Your task to perform on an android device: Go to eBay Image 0: 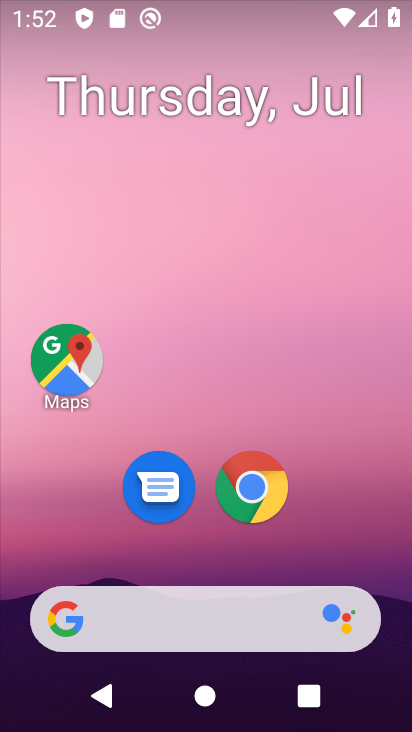
Step 0: drag from (359, 522) to (373, 203)
Your task to perform on an android device: Go to eBay Image 1: 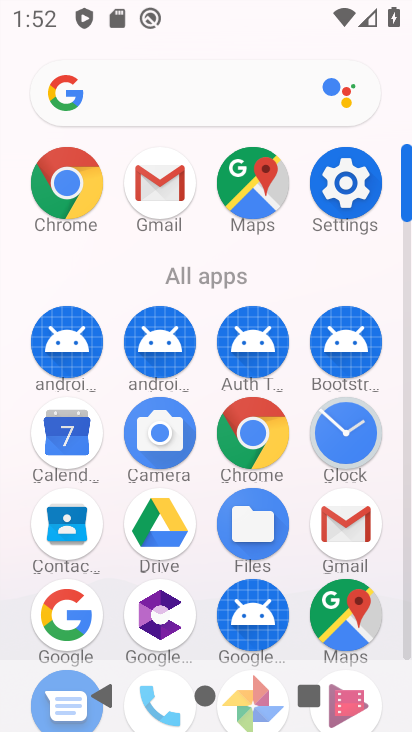
Step 1: click (268, 450)
Your task to perform on an android device: Go to eBay Image 2: 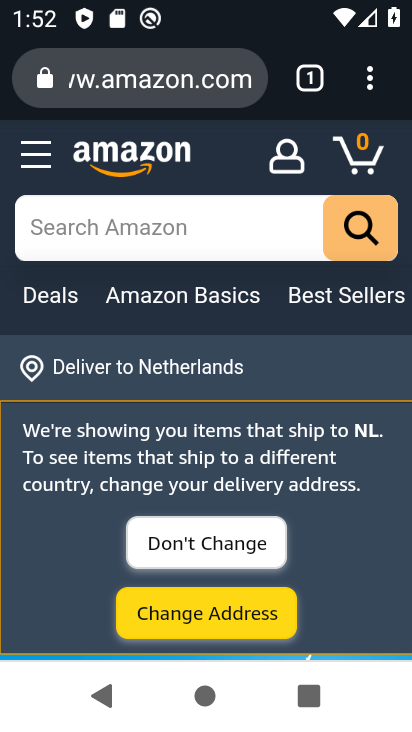
Step 2: click (213, 82)
Your task to perform on an android device: Go to eBay Image 3: 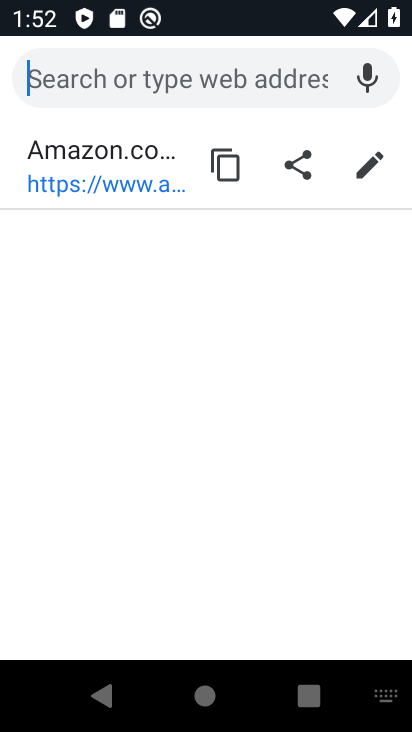
Step 3: type "ebay"
Your task to perform on an android device: Go to eBay Image 4: 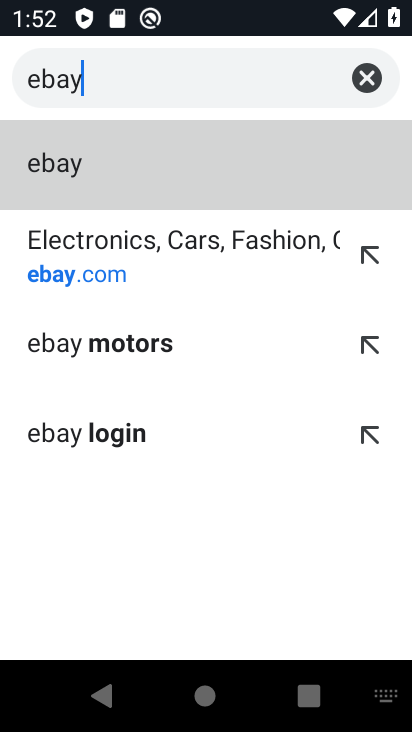
Step 4: click (224, 245)
Your task to perform on an android device: Go to eBay Image 5: 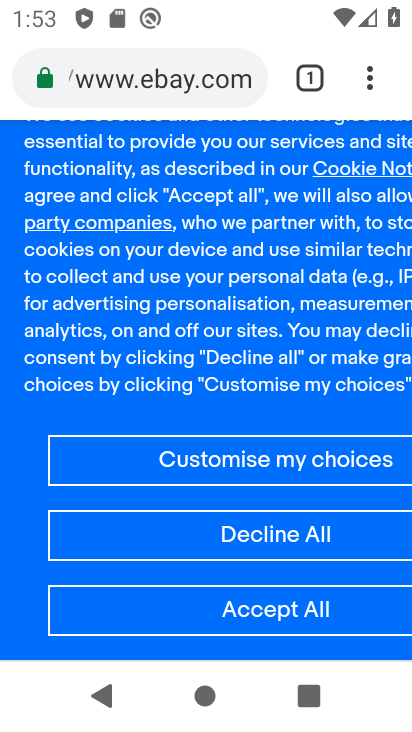
Step 5: task complete